Your task to perform on an android device: Open accessibility settings Image 0: 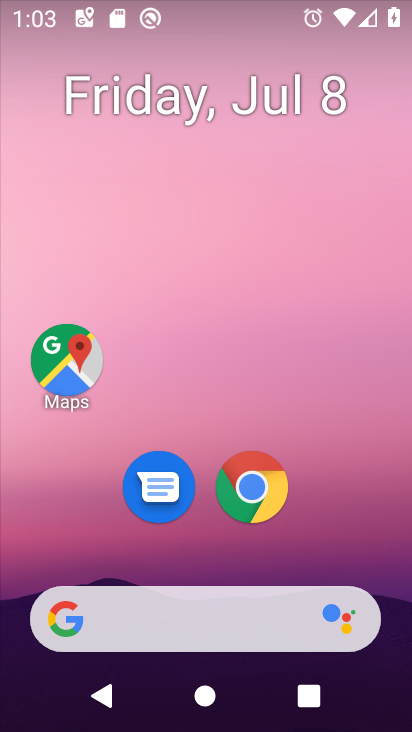
Step 0: drag from (372, 532) to (376, 69)
Your task to perform on an android device: Open accessibility settings Image 1: 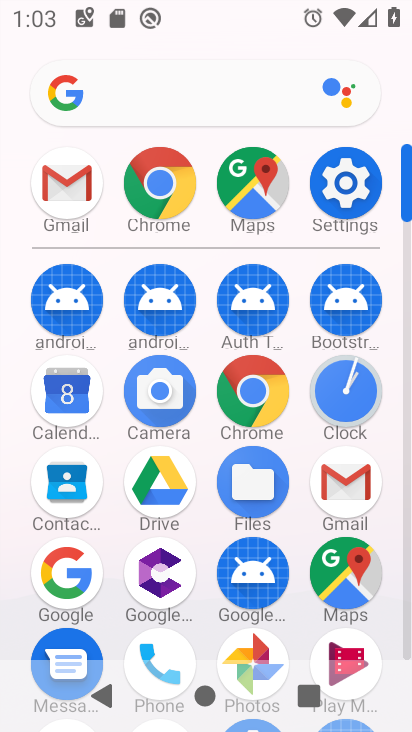
Step 1: click (358, 194)
Your task to perform on an android device: Open accessibility settings Image 2: 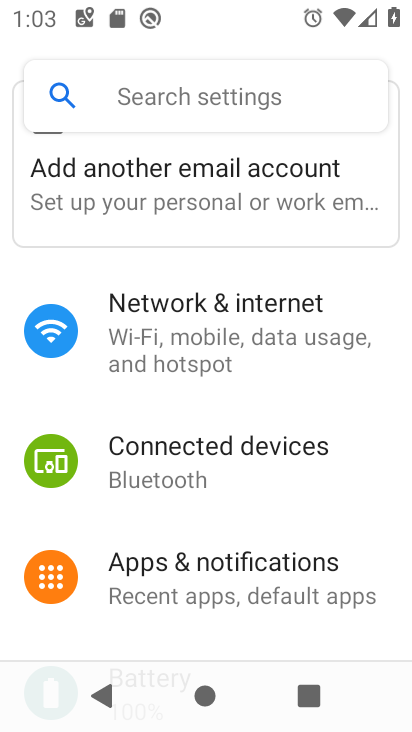
Step 2: drag from (369, 508) to (367, 369)
Your task to perform on an android device: Open accessibility settings Image 3: 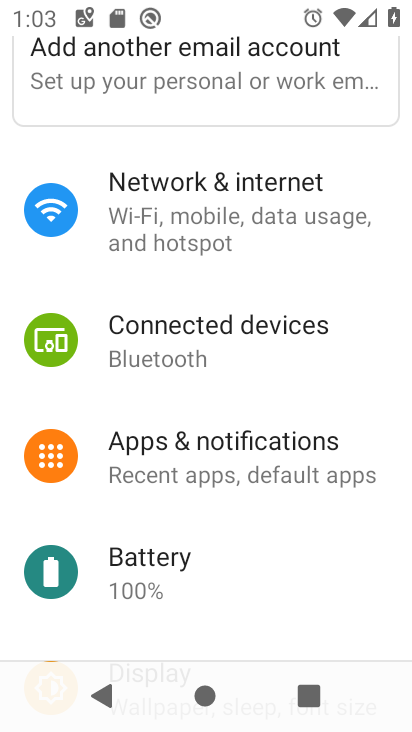
Step 3: drag from (363, 555) to (372, 455)
Your task to perform on an android device: Open accessibility settings Image 4: 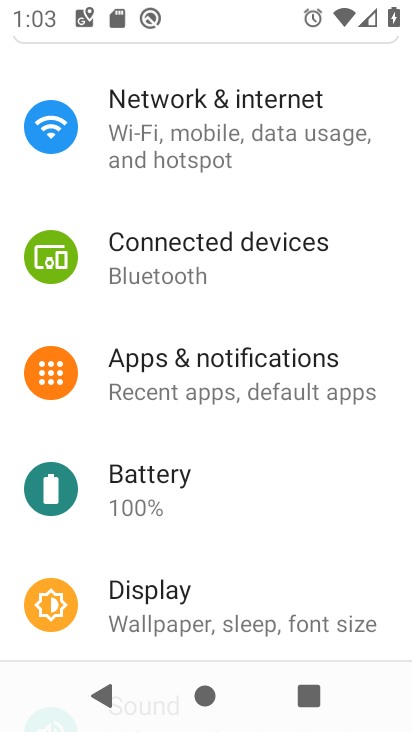
Step 4: drag from (377, 560) to (371, 442)
Your task to perform on an android device: Open accessibility settings Image 5: 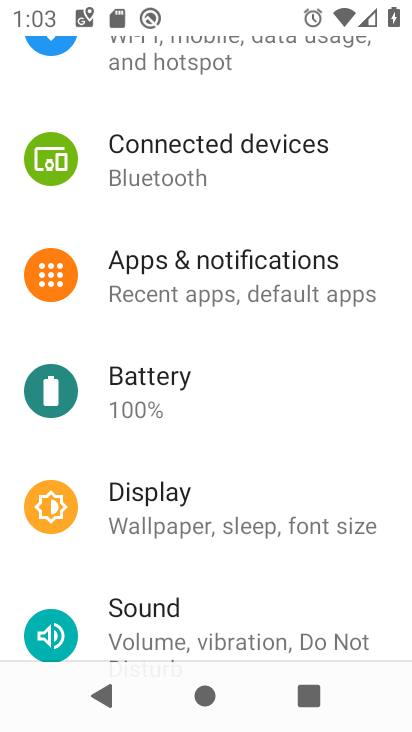
Step 5: drag from (365, 581) to (362, 437)
Your task to perform on an android device: Open accessibility settings Image 6: 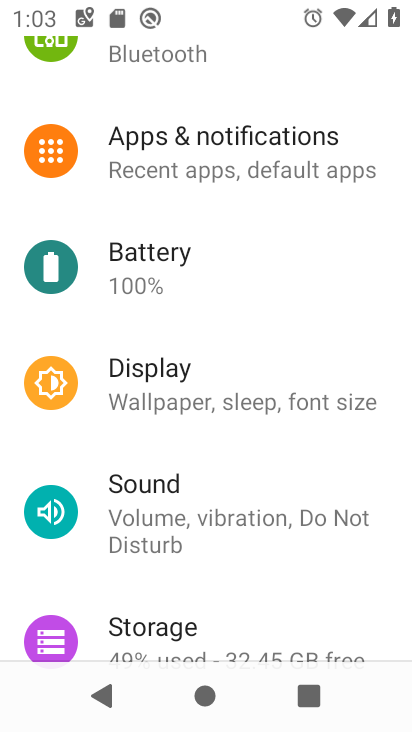
Step 6: drag from (360, 583) to (357, 480)
Your task to perform on an android device: Open accessibility settings Image 7: 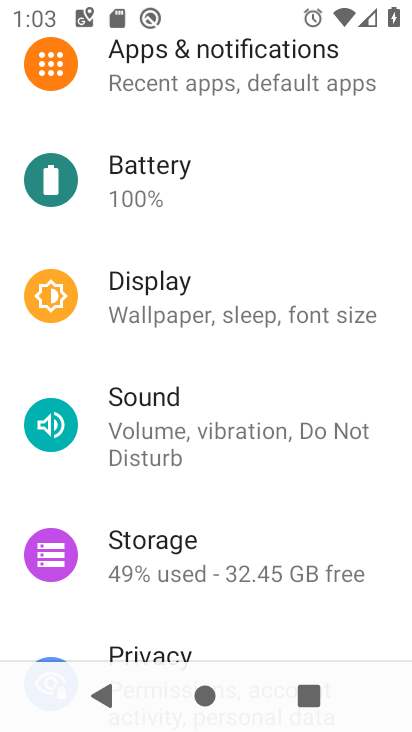
Step 7: drag from (356, 619) to (365, 500)
Your task to perform on an android device: Open accessibility settings Image 8: 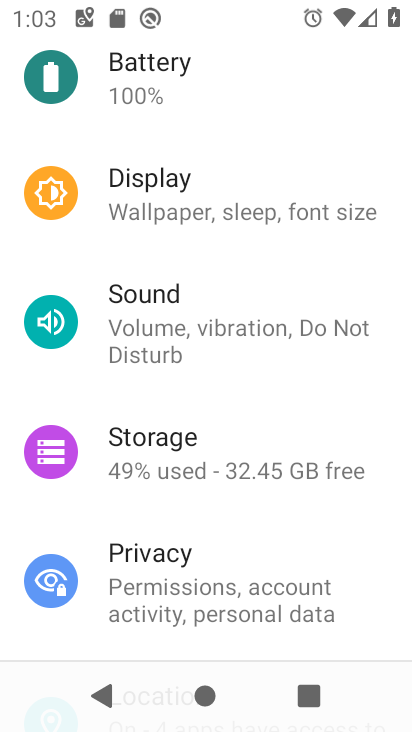
Step 8: drag from (362, 590) to (364, 485)
Your task to perform on an android device: Open accessibility settings Image 9: 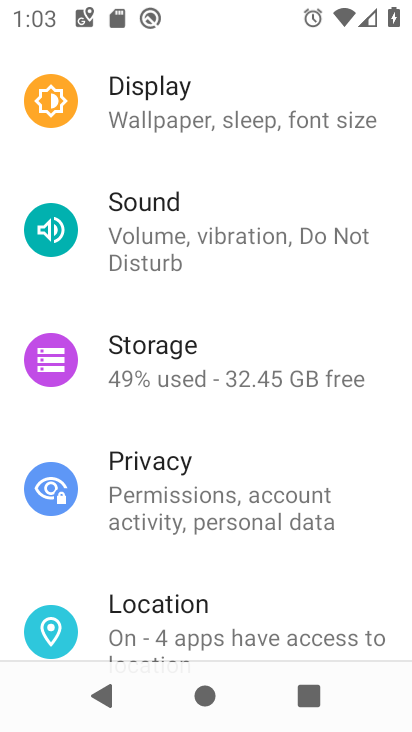
Step 9: drag from (363, 585) to (364, 483)
Your task to perform on an android device: Open accessibility settings Image 10: 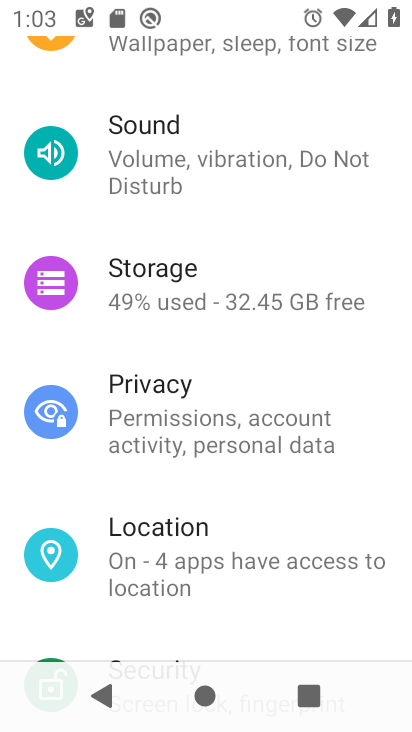
Step 10: drag from (344, 583) to (355, 397)
Your task to perform on an android device: Open accessibility settings Image 11: 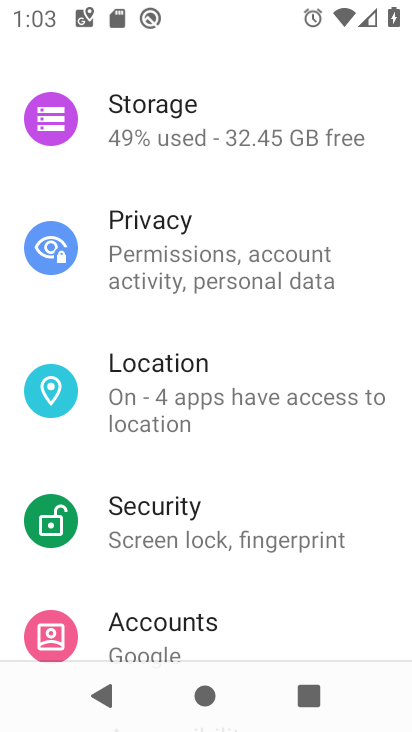
Step 11: drag from (357, 604) to (361, 451)
Your task to perform on an android device: Open accessibility settings Image 12: 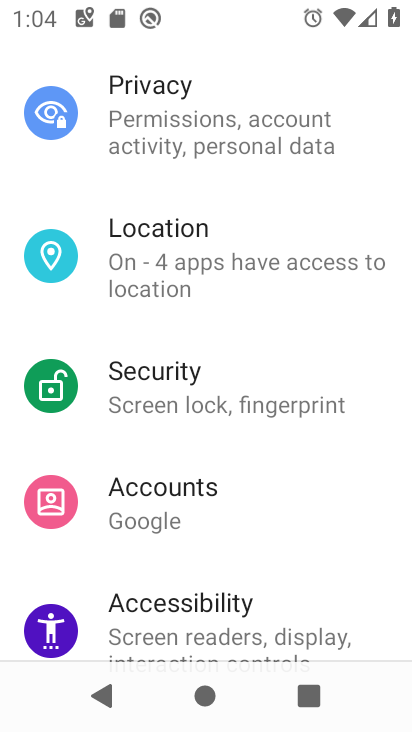
Step 12: drag from (344, 546) to (355, 419)
Your task to perform on an android device: Open accessibility settings Image 13: 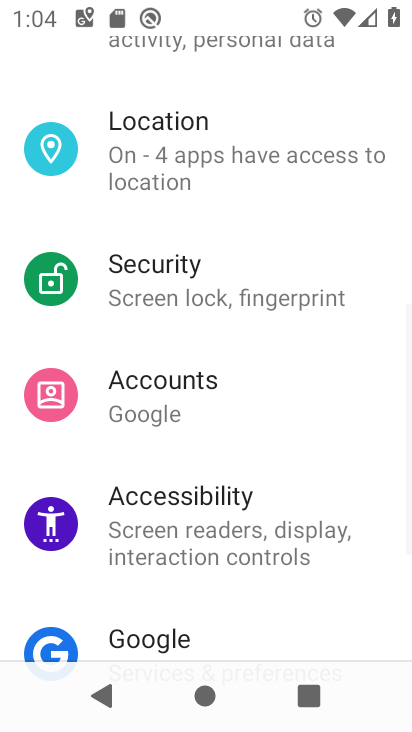
Step 13: click (333, 570)
Your task to perform on an android device: Open accessibility settings Image 14: 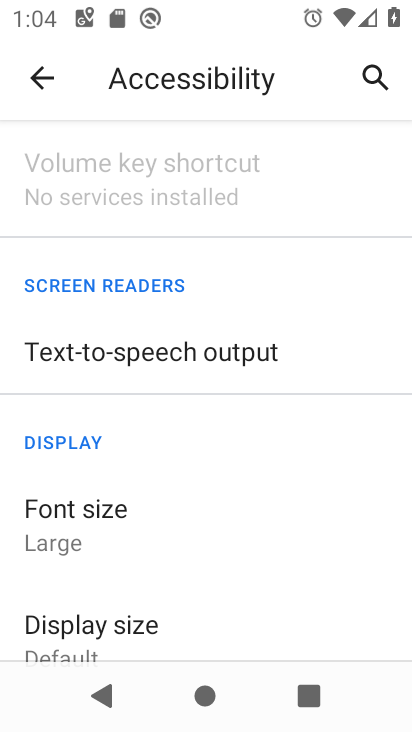
Step 14: task complete